Your task to perform on an android device: Open the stopwatch Image 0: 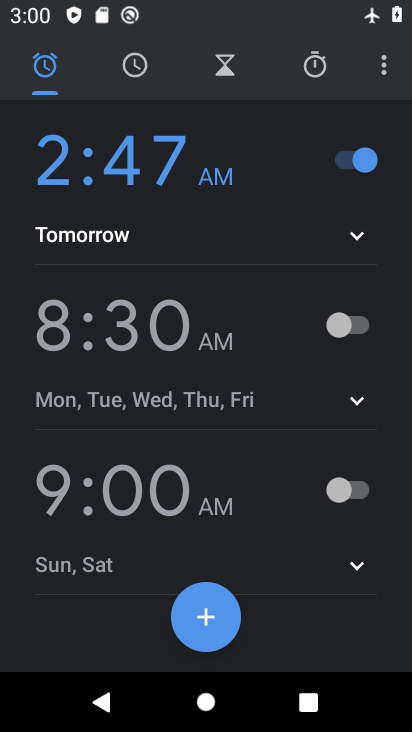
Step 0: click (328, 71)
Your task to perform on an android device: Open the stopwatch Image 1: 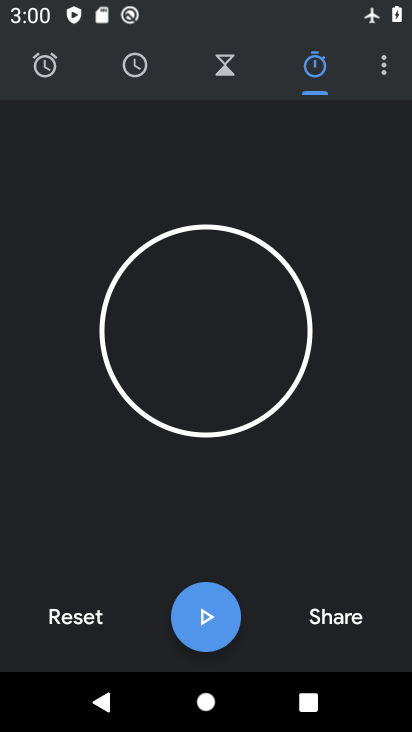
Step 1: task complete